Your task to perform on an android device: Open maps Image 0: 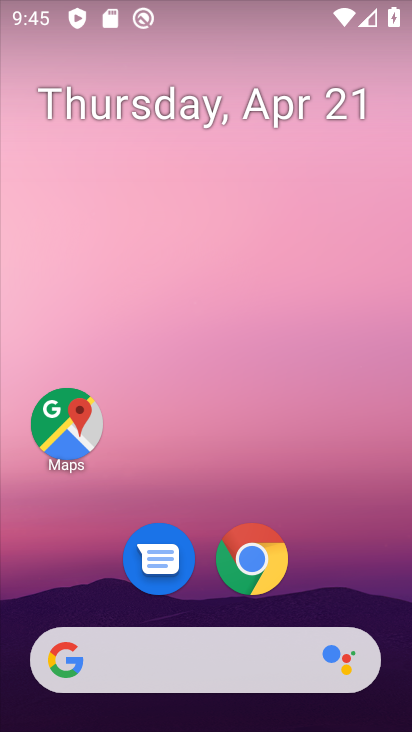
Step 0: click (78, 434)
Your task to perform on an android device: Open maps Image 1: 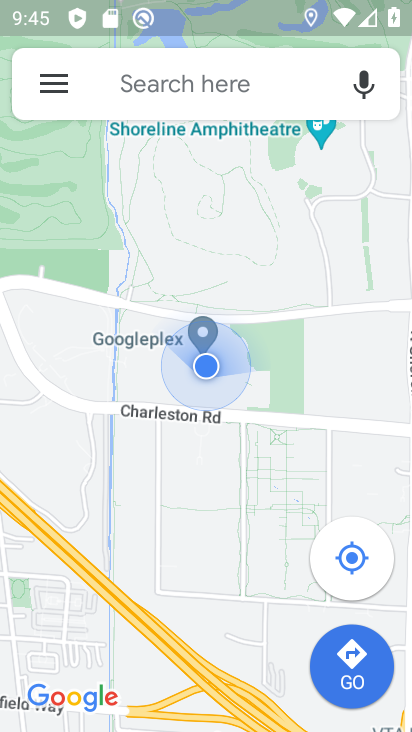
Step 1: task complete